Your task to perform on an android device: see creations saved in the google photos Image 0: 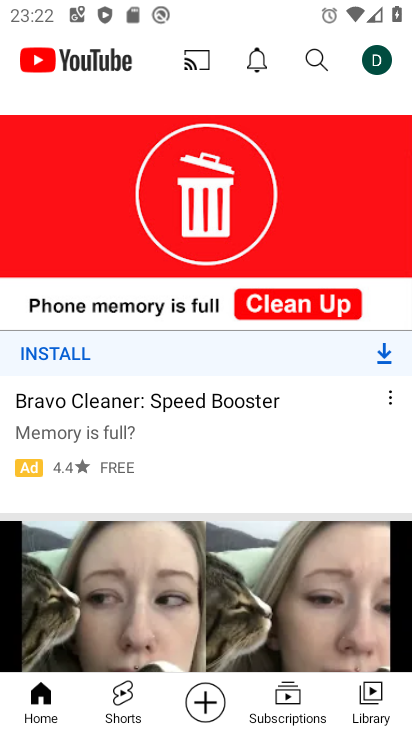
Step 0: press home button
Your task to perform on an android device: see creations saved in the google photos Image 1: 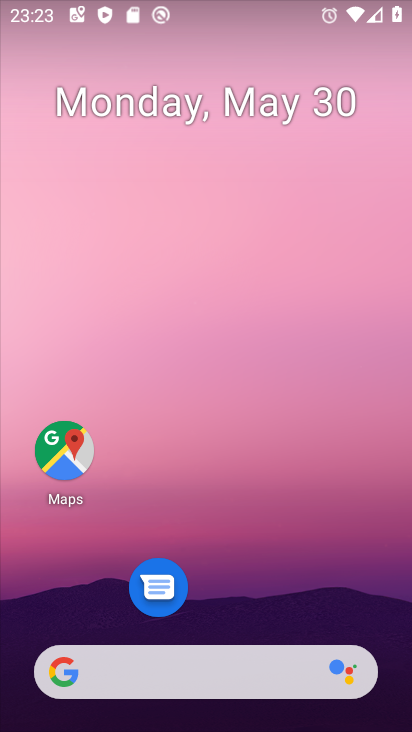
Step 1: drag from (223, 642) to (202, 10)
Your task to perform on an android device: see creations saved in the google photos Image 2: 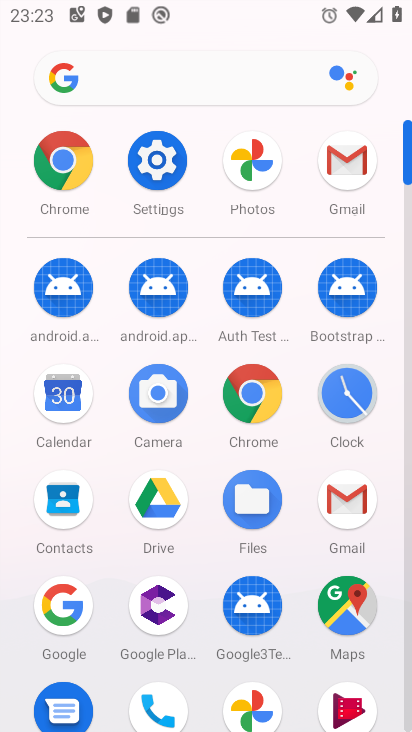
Step 2: click (256, 702)
Your task to perform on an android device: see creations saved in the google photos Image 3: 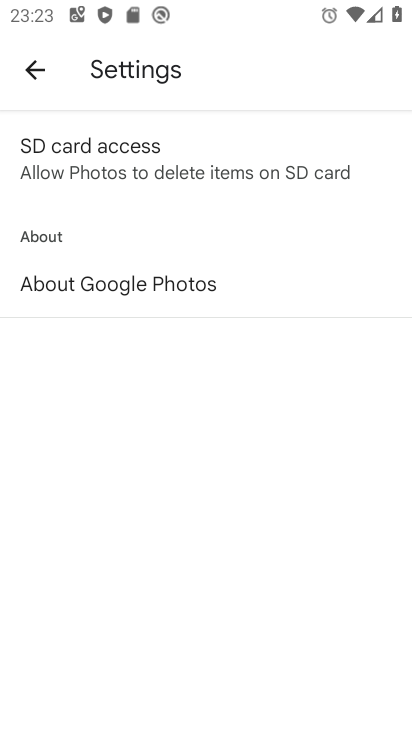
Step 3: click (31, 81)
Your task to perform on an android device: see creations saved in the google photos Image 4: 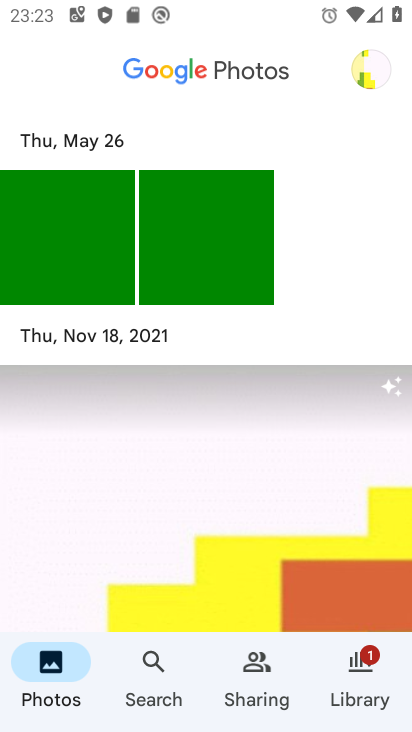
Step 4: click (155, 674)
Your task to perform on an android device: see creations saved in the google photos Image 5: 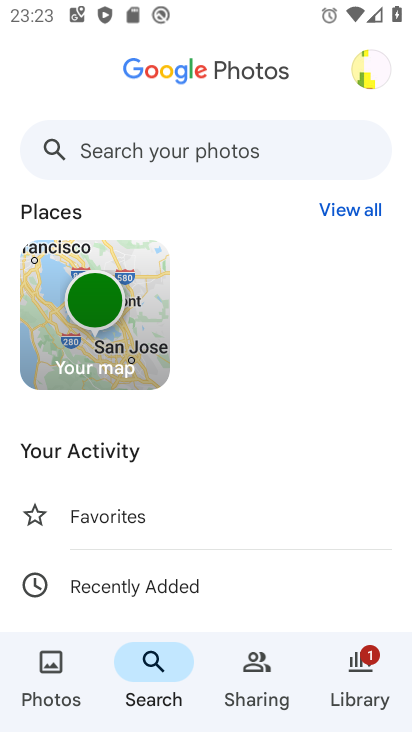
Step 5: click (199, 116)
Your task to perform on an android device: see creations saved in the google photos Image 6: 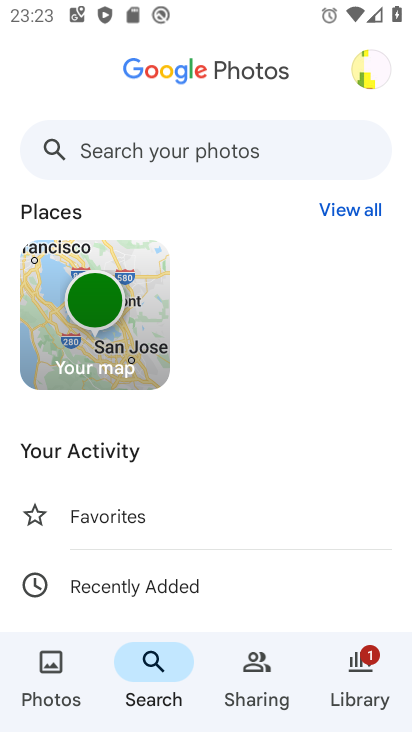
Step 6: click (199, 145)
Your task to perform on an android device: see creations saved in the google photos Image 7: 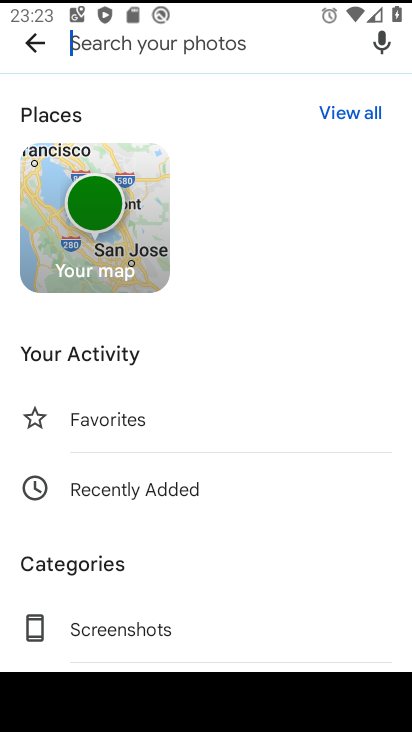
Step 7: drag from (141, 576) to (62, 61)
Your task to perform on an android device: see creations saved in the google photos Image 8: 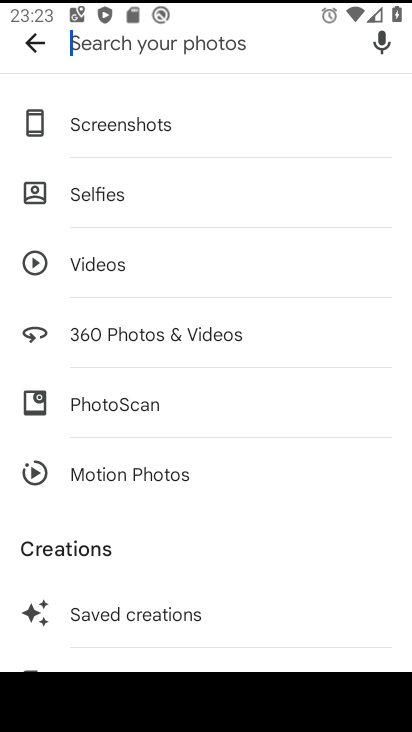
Step 8: click (153, 615)
Your task to perform on an android device: see creations saved in the google photos Image 9: 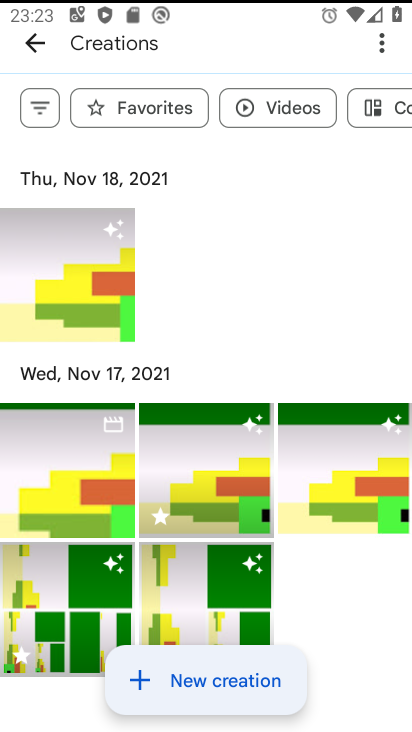
Step 9: task complete